Your task to perform on an android device: check storage Image 0: 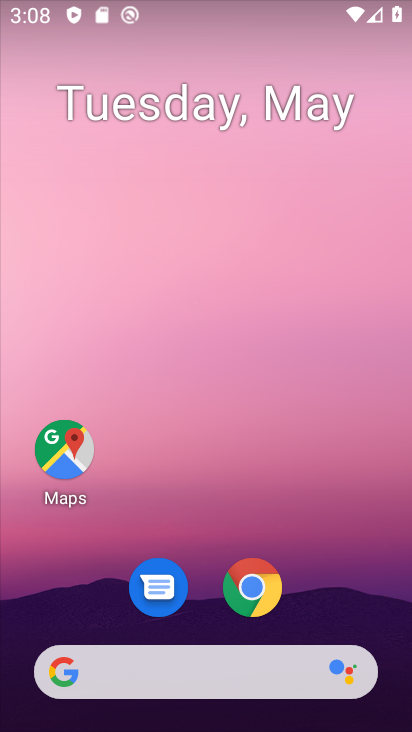
Step 0: drag from (307, 606) to (300, 237)
Your task to perform on an android device: check storage Image 1: 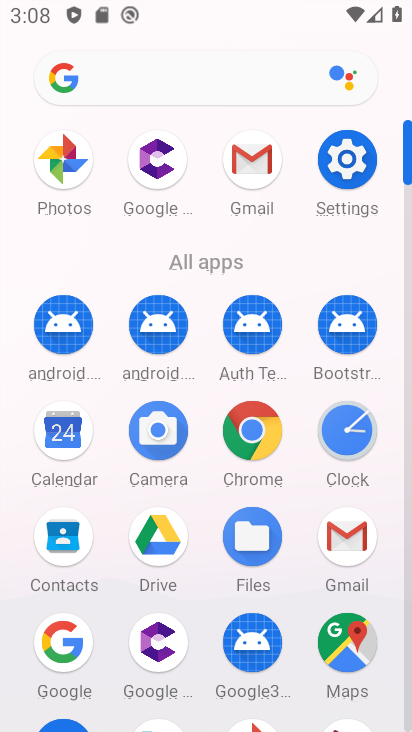
Step 1: click (352, 147)
Your task to perform on an android device: check storage Image 2: 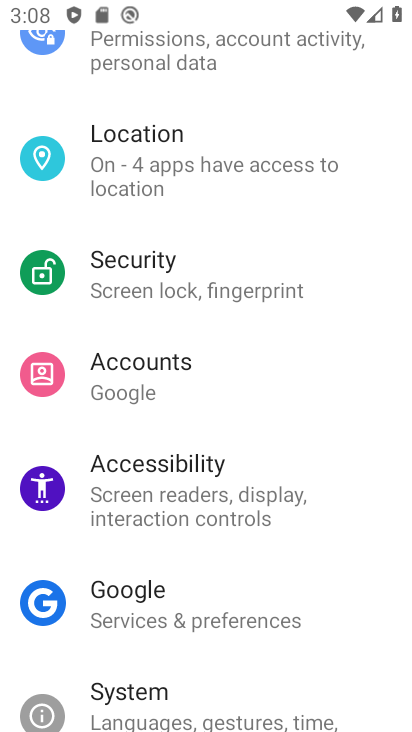
Step 2: drag from (202, 629) to (260, 182)
Your task to perform on an android device: check storage Image 3: 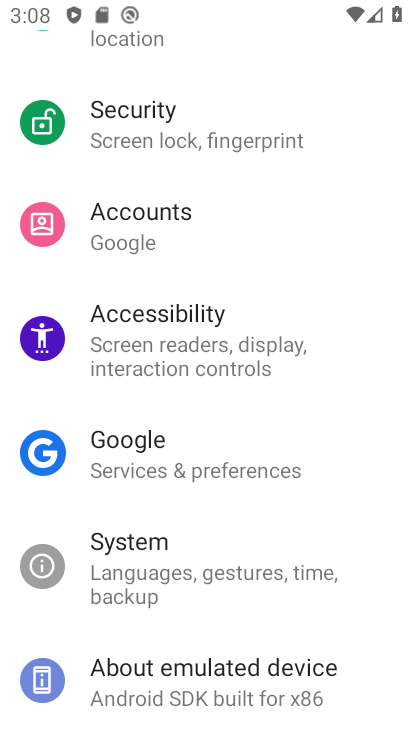
Step 3: drag from (207, 139) to (219, 667)
Your task to perform on an android device: check storage Image 4: 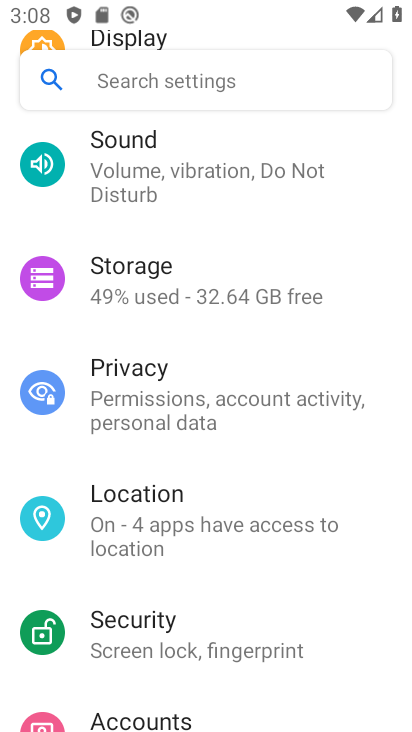
Step 4: click (189, 300)
Your task to perform on an android device: check storage Image 5: 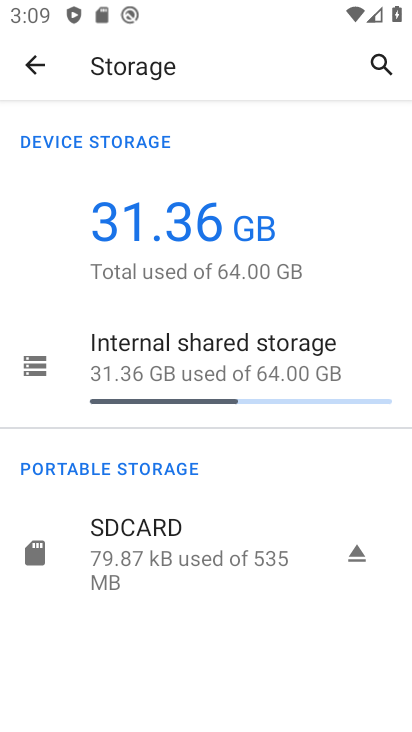
Step 5: task complete